Your task to perform on an android device: Go to Google Image 0: 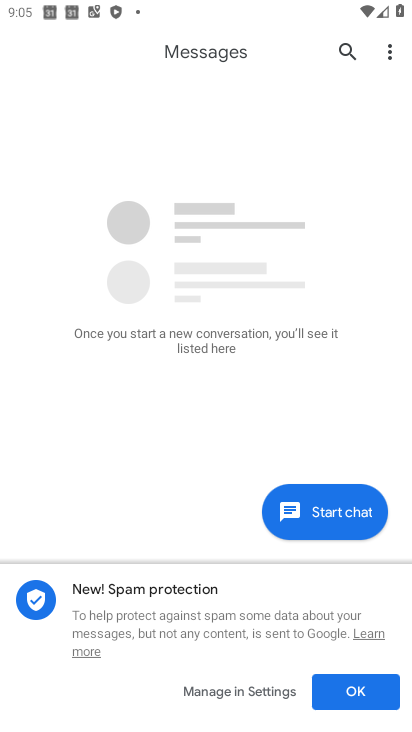
Step 0: press home button
Your task to perform on an android device: Go to Google Image 1: 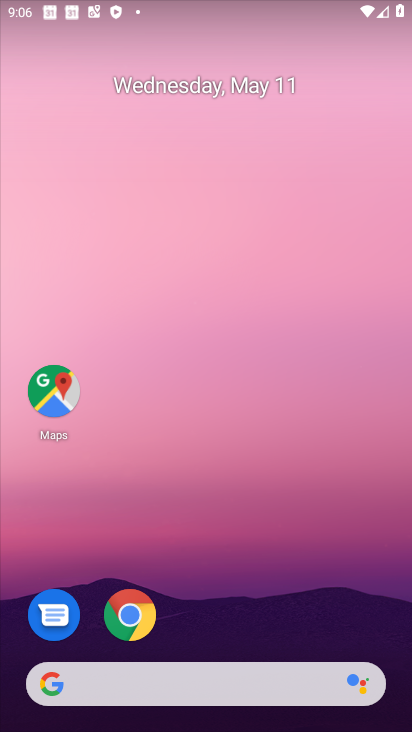
Step 1: click (51, 680)
Your task to perform on an android device: Go to Google Image 2: 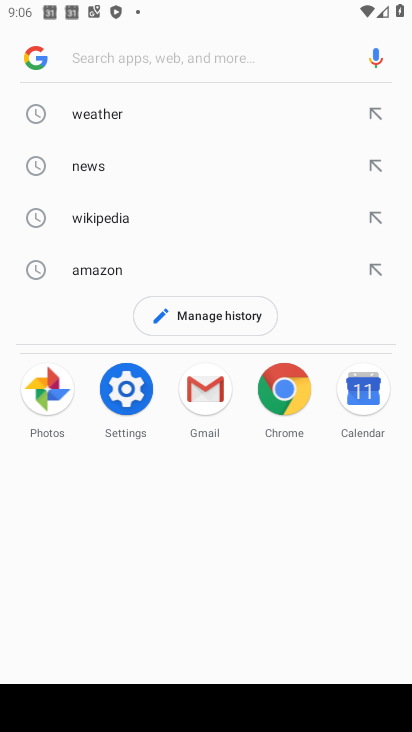
Step 2: click (37, 47)
Your task to perform on an android device: Go to Google Image 3: 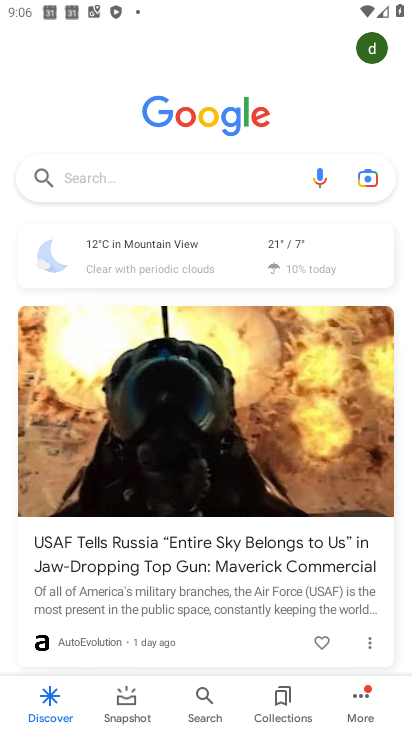
Step 3: task complete